Your task to perform on an android device: toggle sleep mode Image 0: 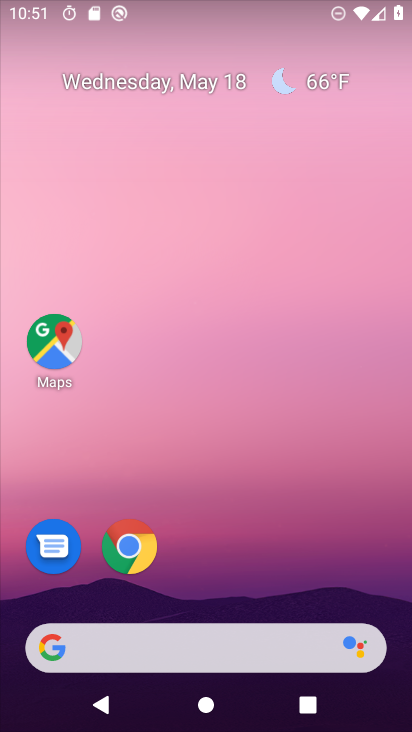
Step 0: drag from (239, 615) to (328, 1)
Your task to perform on an android device: toggle sleep mode Image 1: 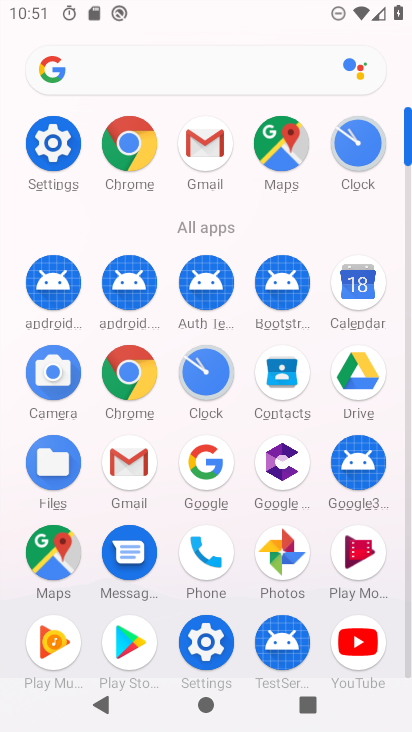
Step 1: click (45, 155)
Your task to perform on an android device: toggle sleep mode Image 2: 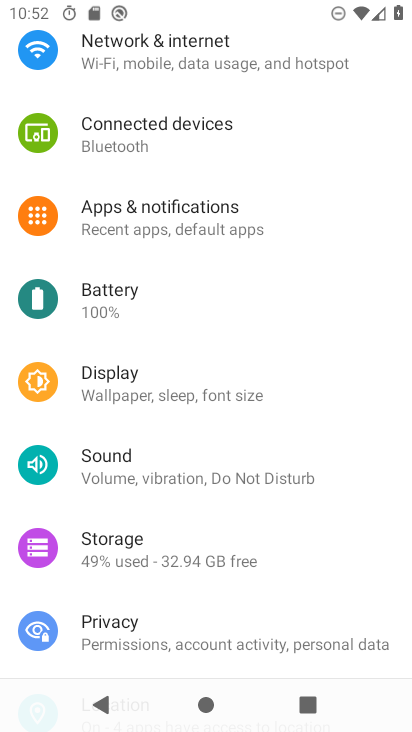
Step 2: task complete